Your task to perform on an android device: uninstall "Fetch Rewards" Image 0: 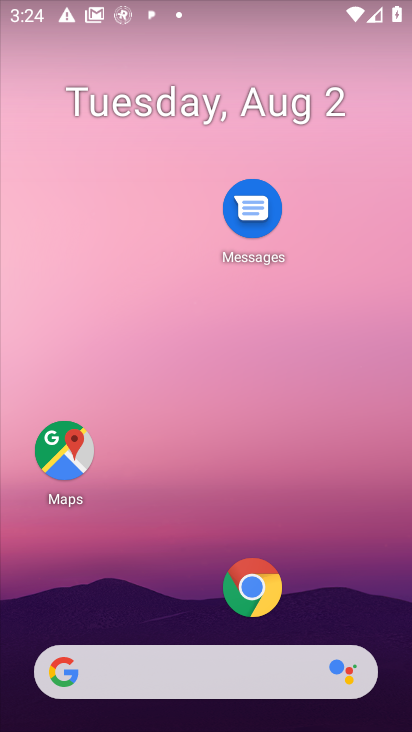
Step 0: drag from (204, 603) to (281, 217)
Your task to perform on an android device: uninstall "Fetch Rewards" Image 1: 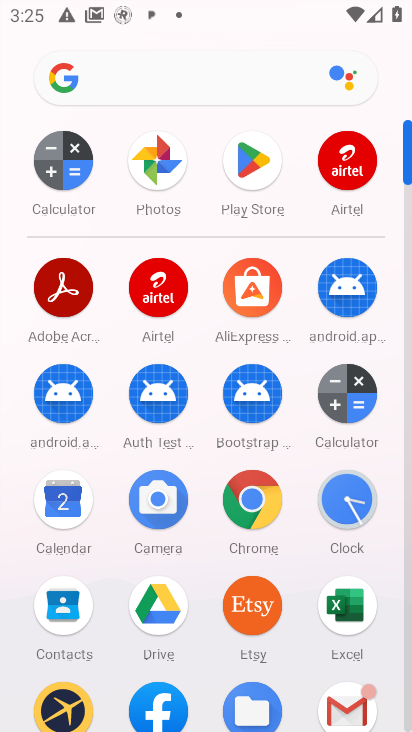
Step 1: click (249, 151)
Your task to perform on an android device: uninstall "Fetch Rewards" Image 2: 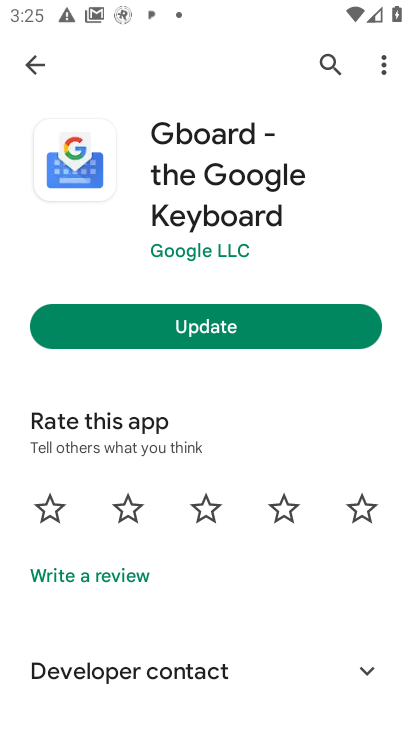
Step 2: click (330, 67)
Your task to perform on an android device: uninstall "Fetch Rewards" Image 3: 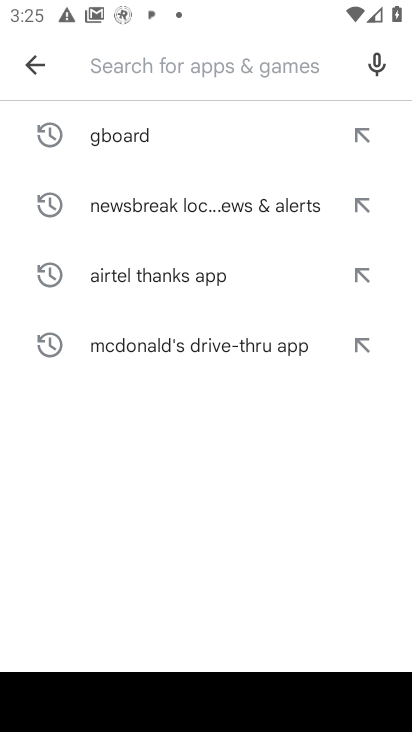
Step 3: type "Fetch Rewards"
Your task to perform on an android device: uninstall "Fetch Rewards" Image 4: 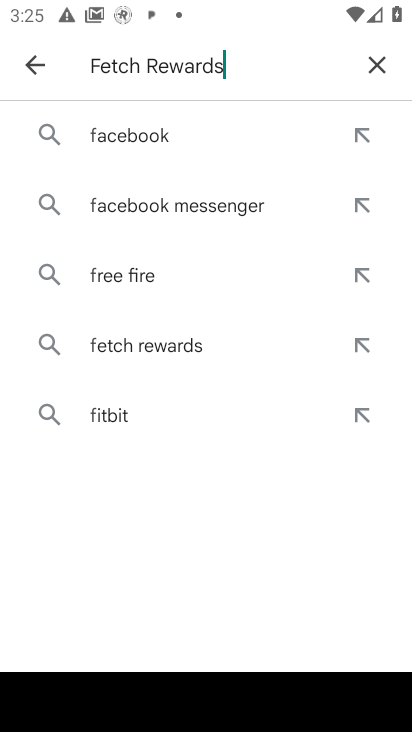
Step 4: type ""
Your task to perform on an android device: uninstall "Fetch Rewards" Image 5: 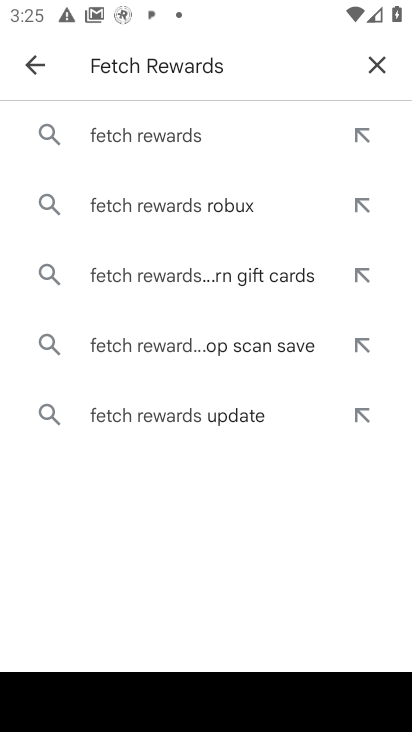
Step 5: click (143, 135)
Your task to perform on an android device: uninstall "Fetch Rewards" Image 6: 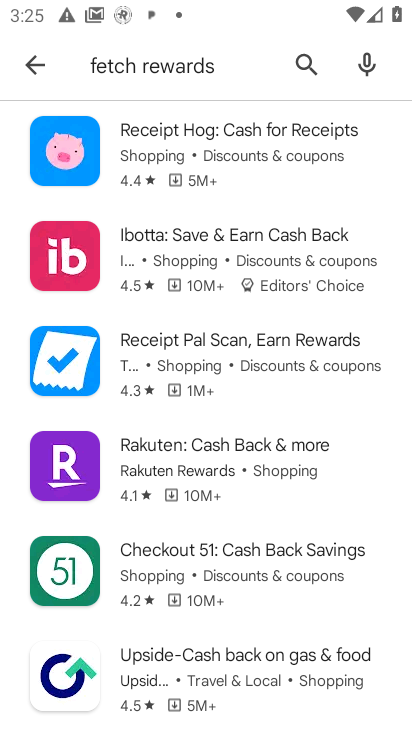
Step 6: task complete